Your task to perform on an android device: toggle wifi Image 0: 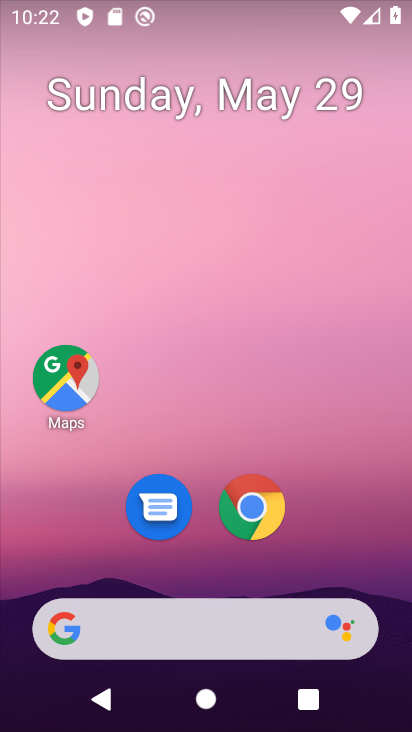
Step 0: drag from (54, 598) to (205, 77)
Your task to perform on an android device: toggle wifi Image 1: 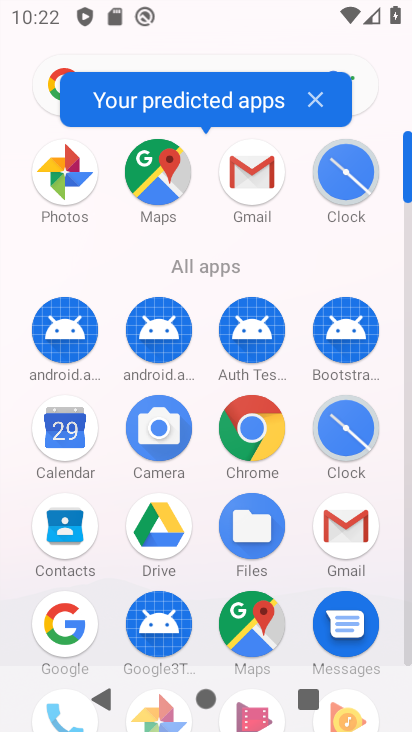
Step 1: drag from (95, 678) to (144, 433)
Your task to perform on an android device: toggle wifi Image 2: 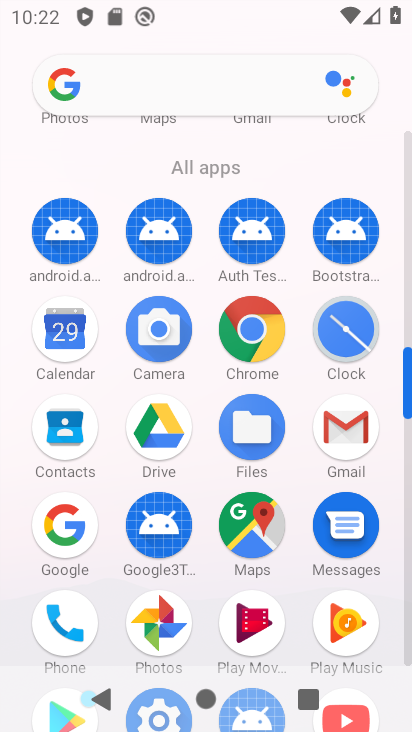
Step 2: drag from (162, 611) to (232, 461)
Your task to perform on an android device: toggle wifi Image 3: 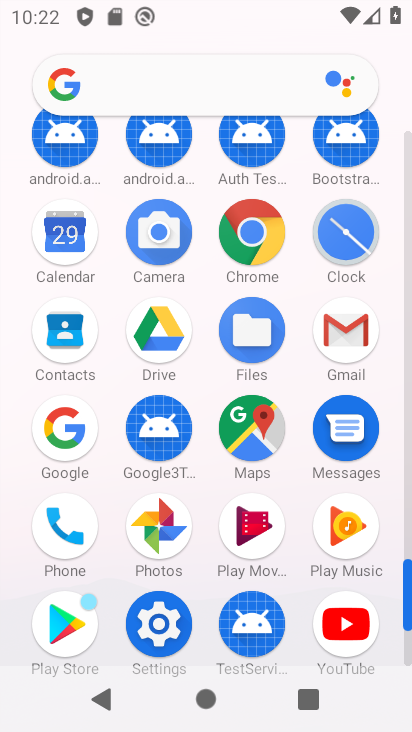
Step 3: click (163, 624)
Your task to perform on an android device: toggle wifi Image 4: 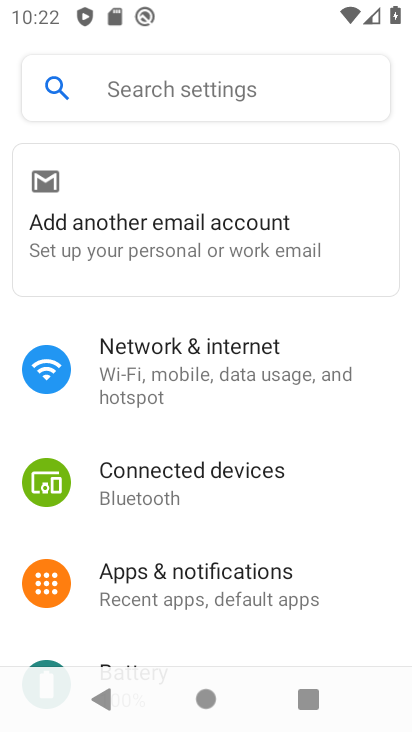
Step 4: click (209, 373)
Your task to perform on an android device: toggle wifi Image 5: 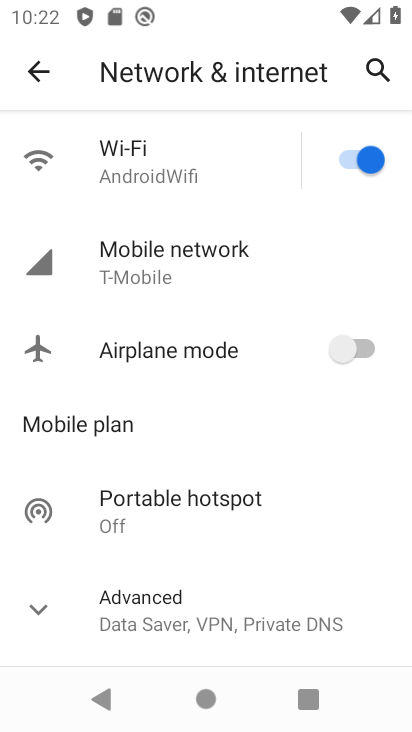
Step 5: click (346, 144)
Your task to perform on an android device: toggle wifi Image 6: 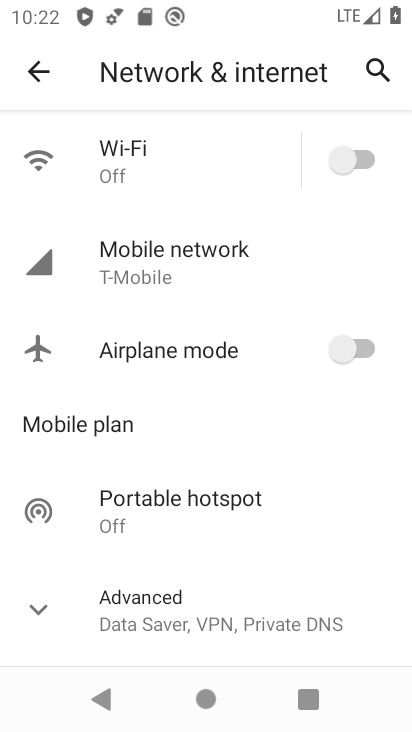
Step 6: task complete